Your task to perform on an android device: Search for sushi restaurants on Maps Image 0: 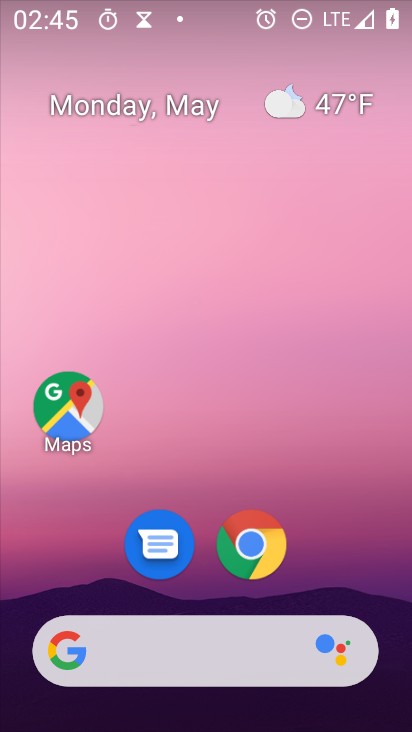
Step 0: drag from (321, 607) to (306, 131)
Your task to perform on an android device: Search for sushi restaurants on Maps Image 1: 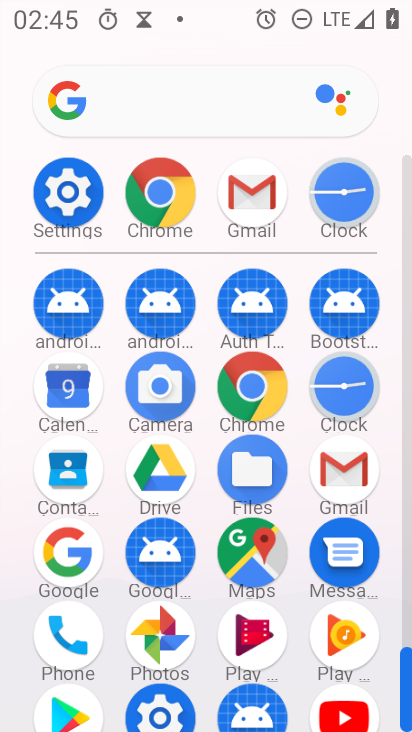
Step 1: click (265, 571)
Your task to perform on an android device: Search for sushi restaurants on Maps Image 2: 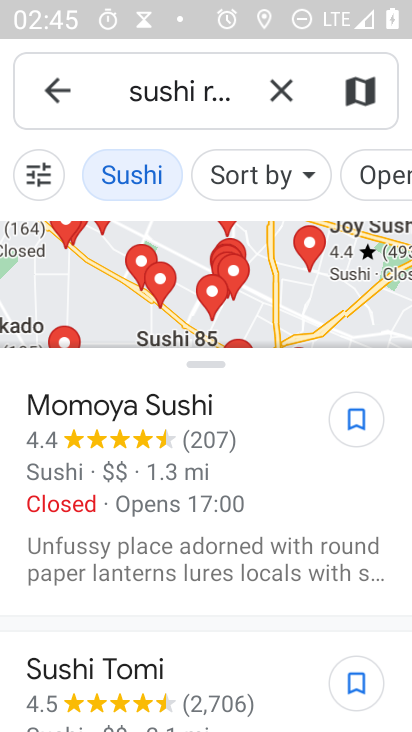
Step 2: task complete